Your task to perform on an android device: Open calendar and show me the second week of next month Image 0: 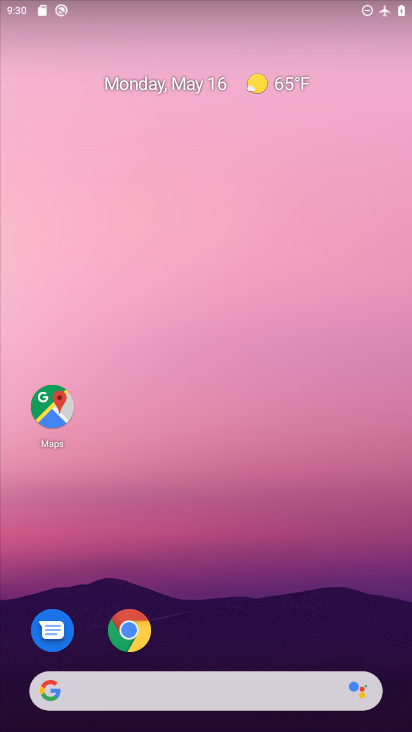
Step 0: drag from (208, 606) to (188, 215)
Your task to perform on an android device: Open calendar and show me the second week of next month Image 1: 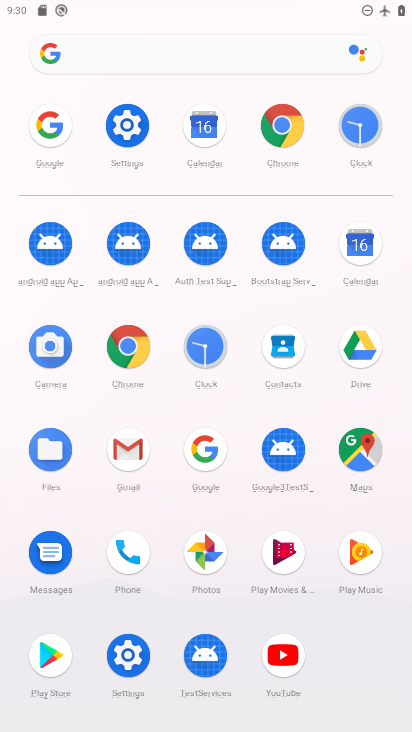
Step 1: click (349, 236)
Your task to perform on an android device: Open calendar and show me the second week of next month Image 2: 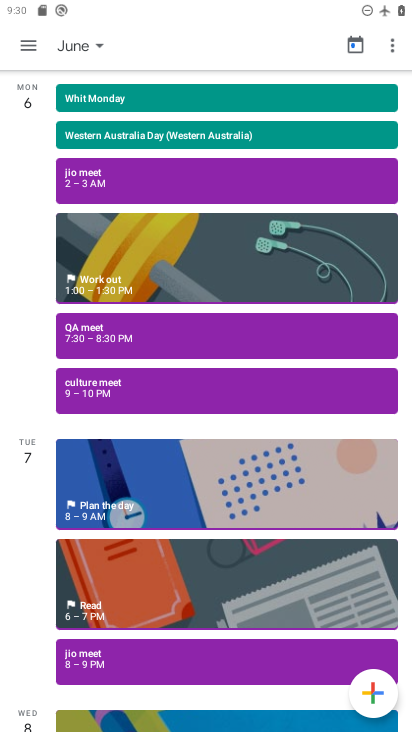
Step 2: click (89, 49)
Your task to perform on an android device: Open calendar and show me the second week of next month Image 3: 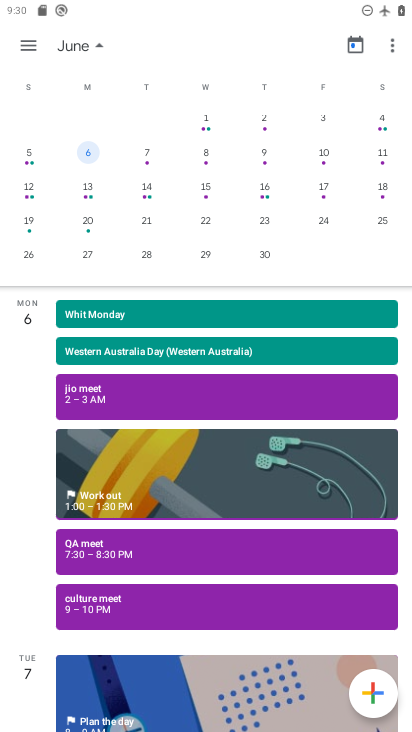
Step 3: drag from (290, 171) to (53, 160)
Your task to perform on an android device: Open calendar and show me the second week of next month Image 4: 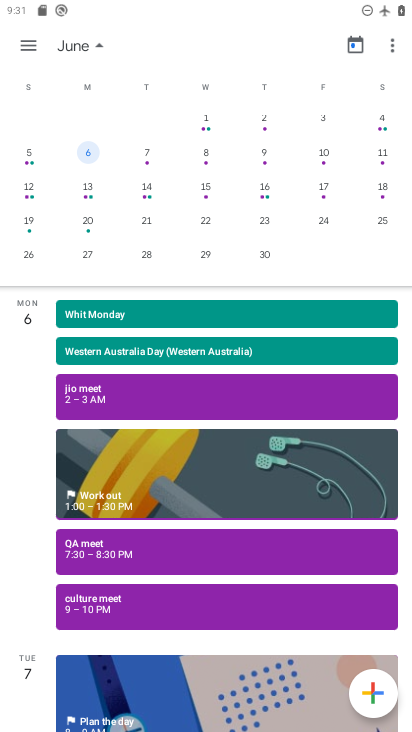
Step 4: click (26, 157)
Your task to perform on an android device: Open calendar and show me the second week of next month Image 5: 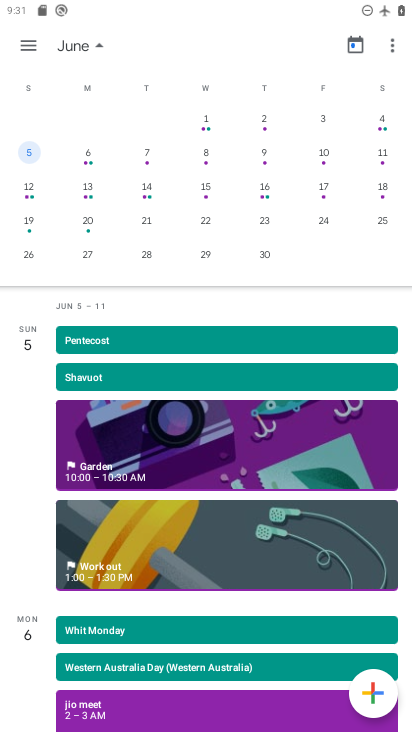
Step 5: task complete